Your task to perform on an android device: When is my next appointment? Image 0: 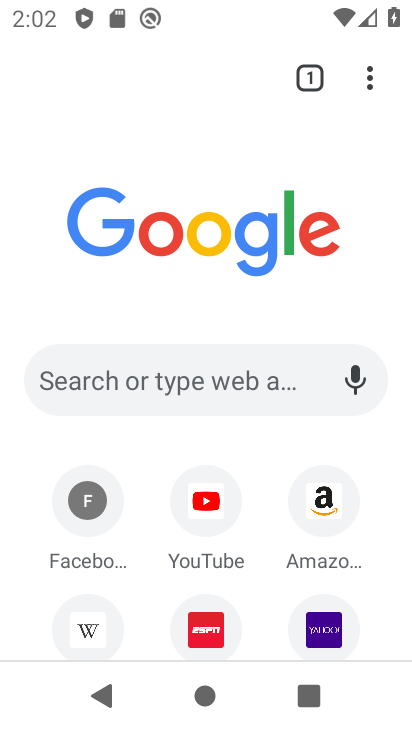
Step 0: press home button
Your task to perform on an android device: When is my next appointment? Image 1: 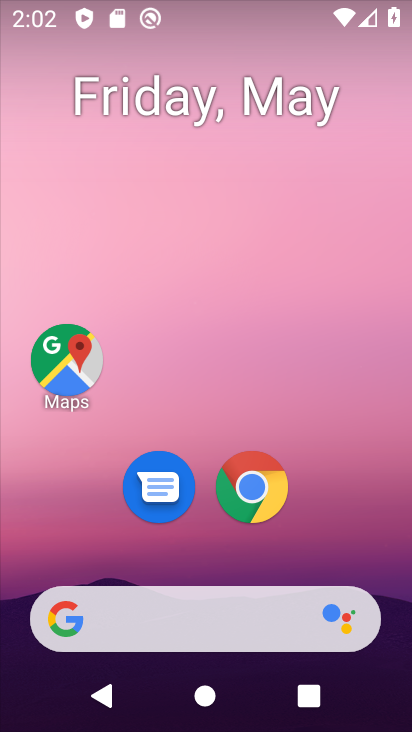
Step 1: drag from (127, 506) to (201, 75)
Your task to perform on an android device: When is my next appointment? Image 2: 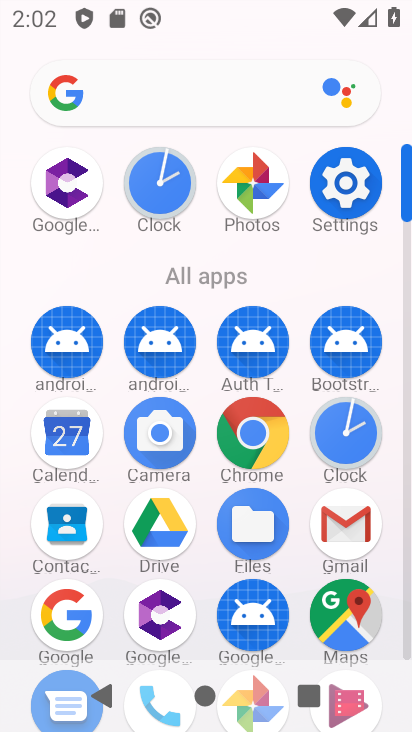
Step 2: click (60, 443)
Your task to perform on an android device: When is my next appointment? Image 3: 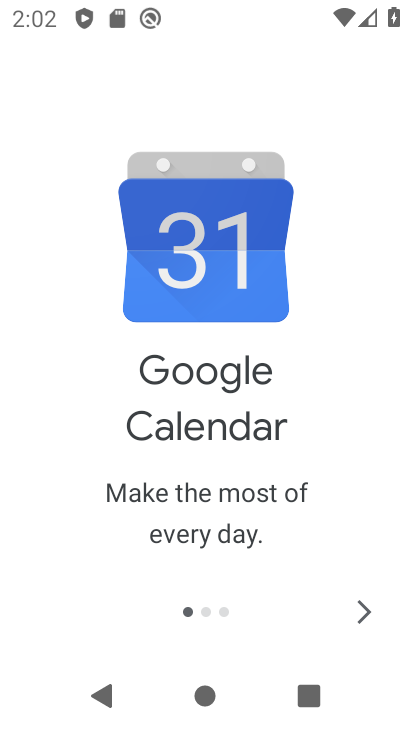
Step 3: click (342, 606)
Your task to perform on an android device: When is my next appointment? Image 4: 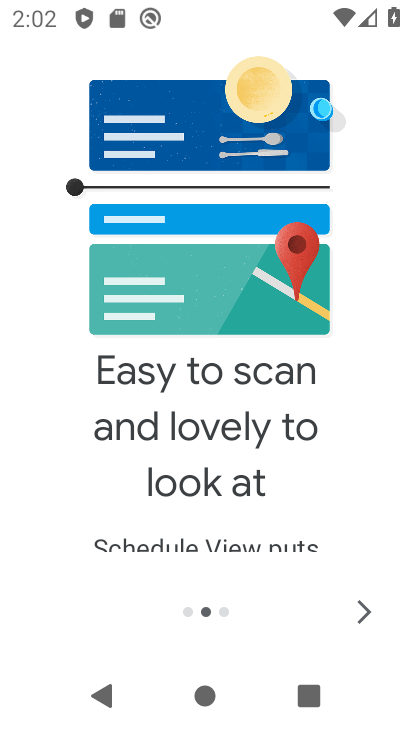
Step 4: click (362, 612)
Your task to perform on an android device: When is my next appointment? Image 5: 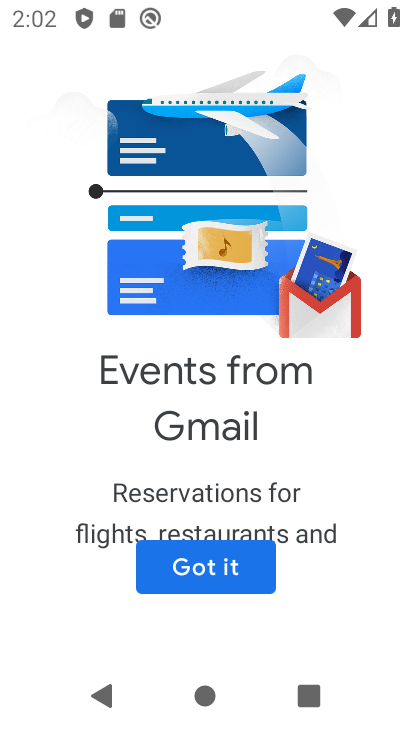
Step 5: click (188, 572)
Your task to perform on an android device: When is my next appointment? Image 6: 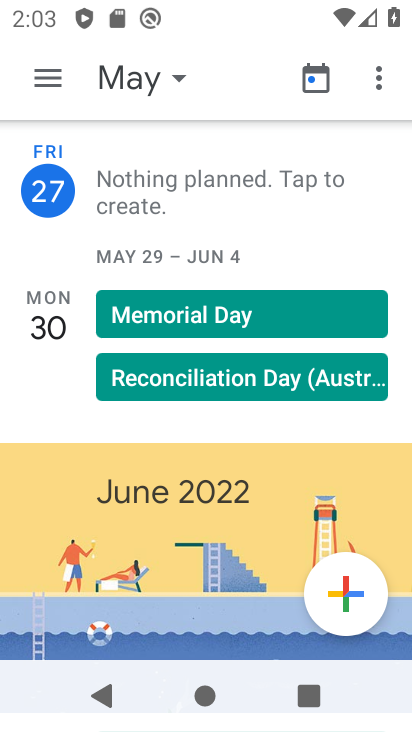
Step 6: task complete